Your task to perform on an android device: manage bookmarks in the chrome app Image 0: 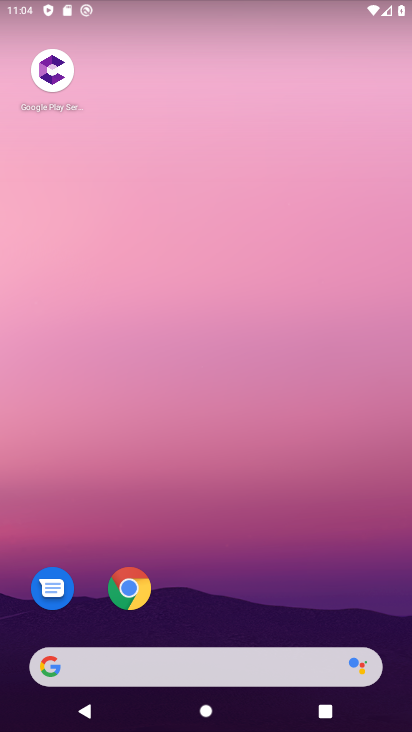
Step 0: drag from (261, 609) to (316, 0)
Your task to perform on an android device: manage bookmarks in the chrome app Image 1: 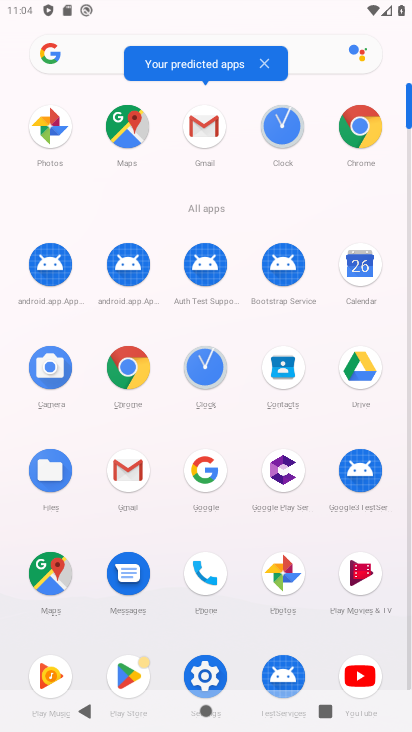
Step 1: click (125, 370)
Your task to perform on an android device: manage bookmarks in the chrome app Image 2: 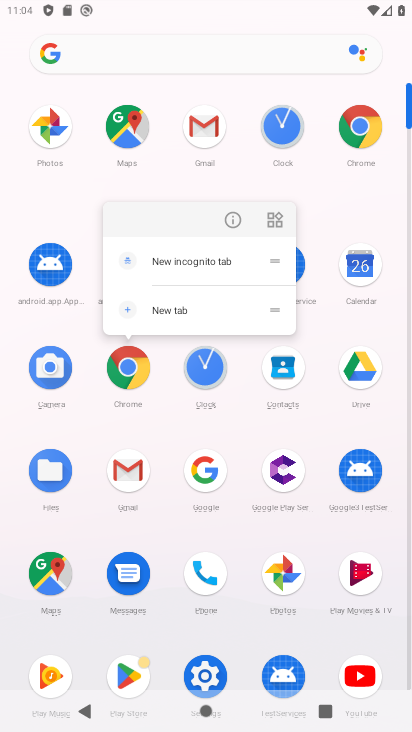
Step 2: click (125, 370)
Your task to perform on an android device: manage bookmarks in the chrome app Image 3: 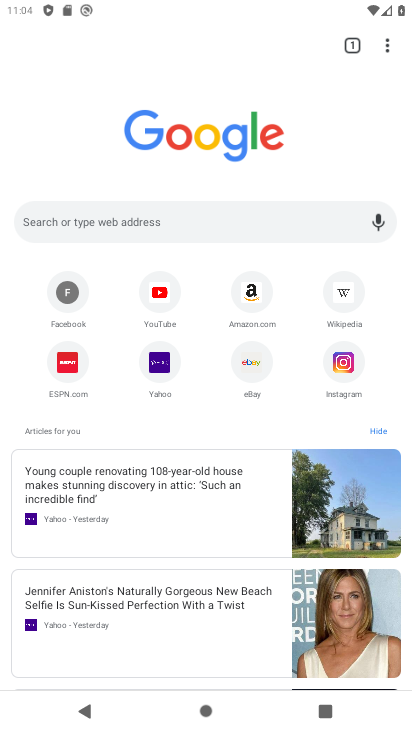
Step 3: click (388, 39)
Your task to perform on an android device: manage bookmarks in the chrome app Image 4: 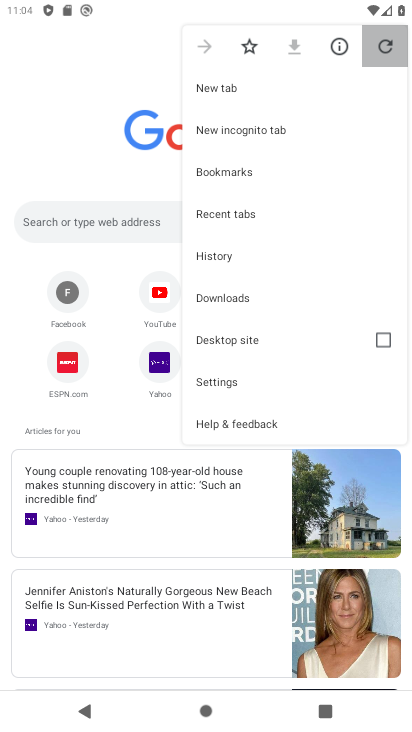
Step 4: task complete